Your task to perform on an android device: turn off improve location accuracy Image 0: 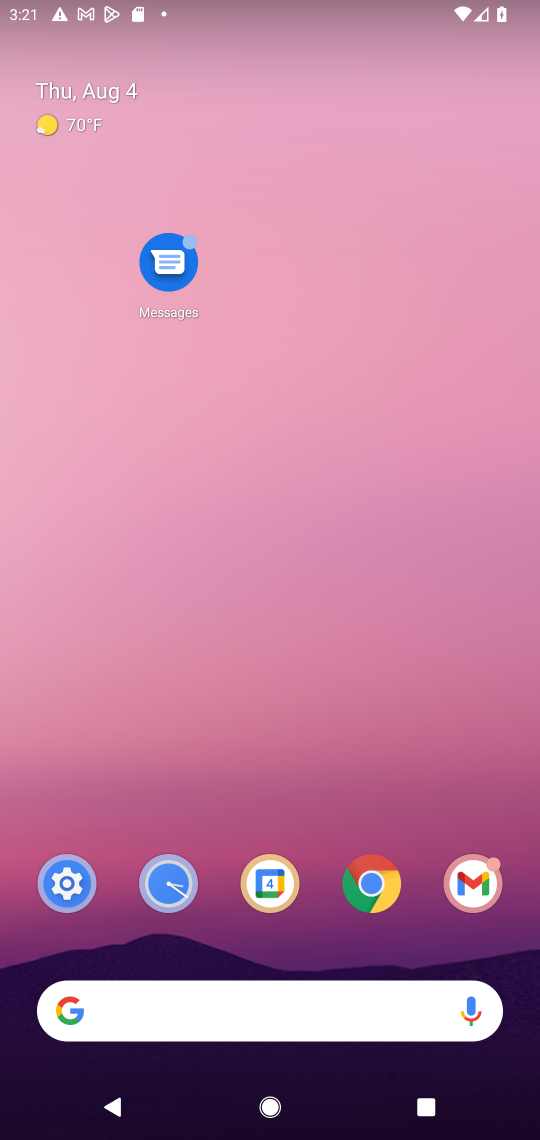
Step 0: drag from (310, 775) to (331, 136)
Your task to perform on an android device: turn off improve location accuracy Image 1: 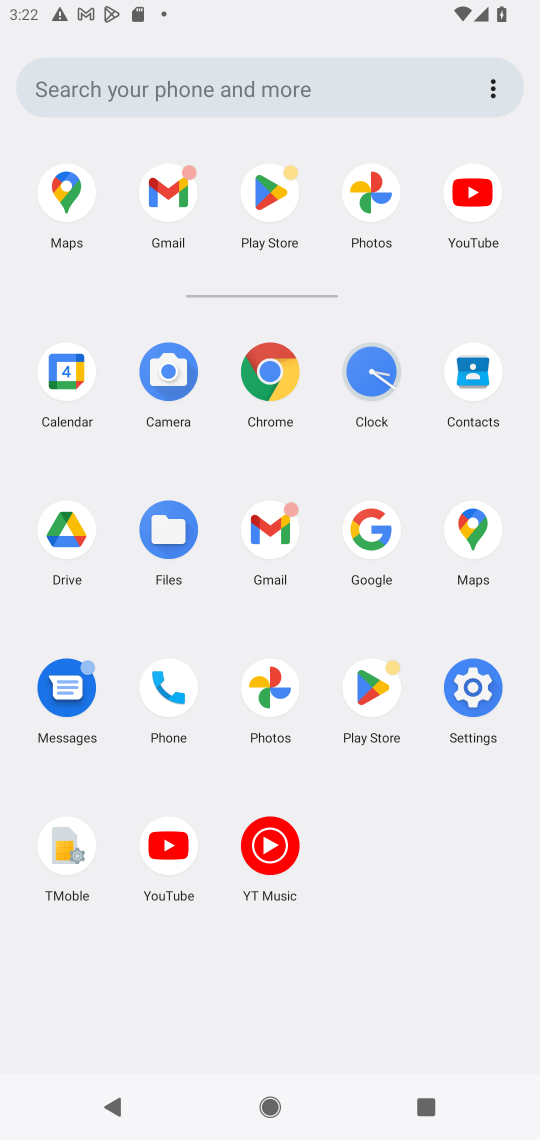
Step 1: click (473, 689)
Your task to perform on an android device: turn off improve location accuracy Image 2: 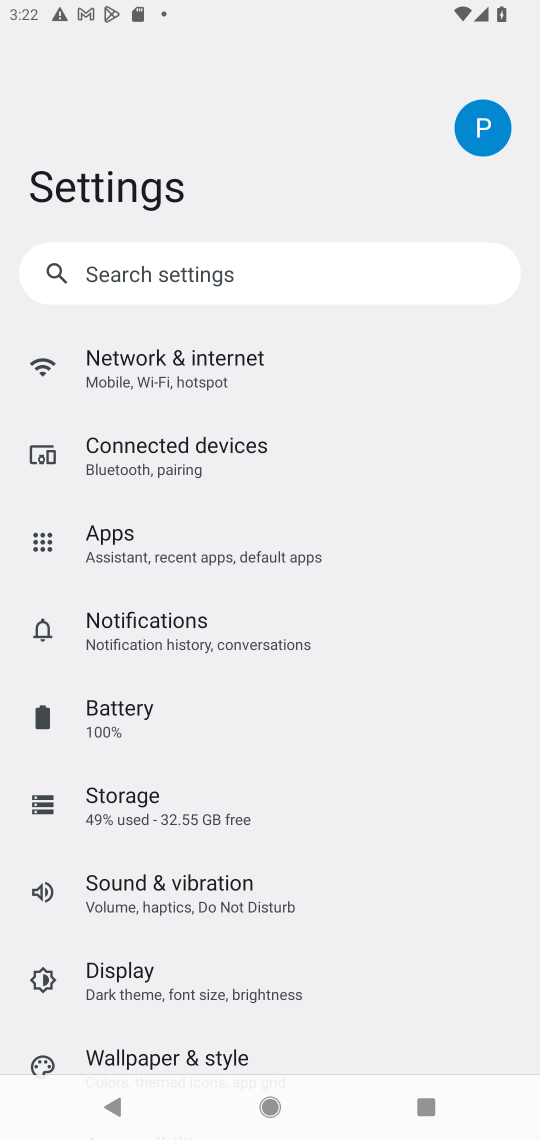
Step 2: drag from (233, 984) to (222, 655)
Your task to perform on an android device: turn off improve location accuracy Image 3: 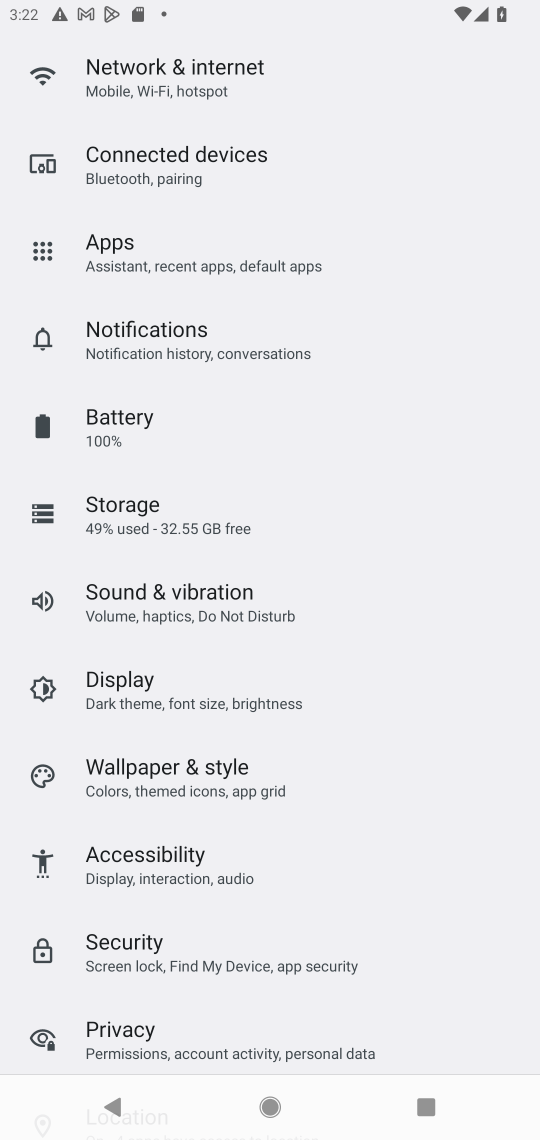
Step 3: drag from (213, 944) to (204, 514)
Your task to perform on an android device: turn off improve location accuracy Image 4: 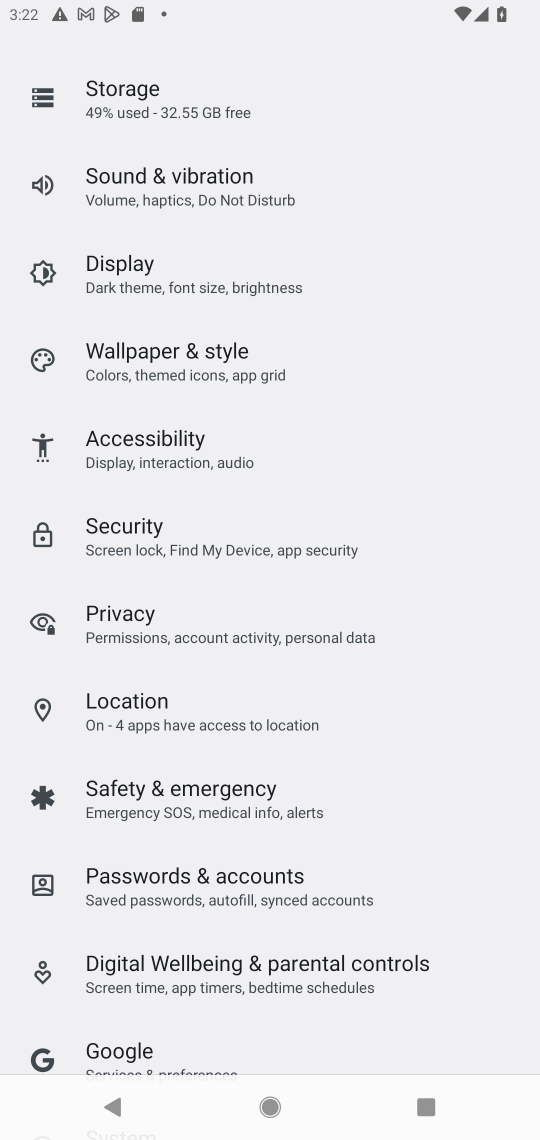
Step 4: click (136, 705)
Your task to perform on an android device: turn off improve location accuracy Image 5: 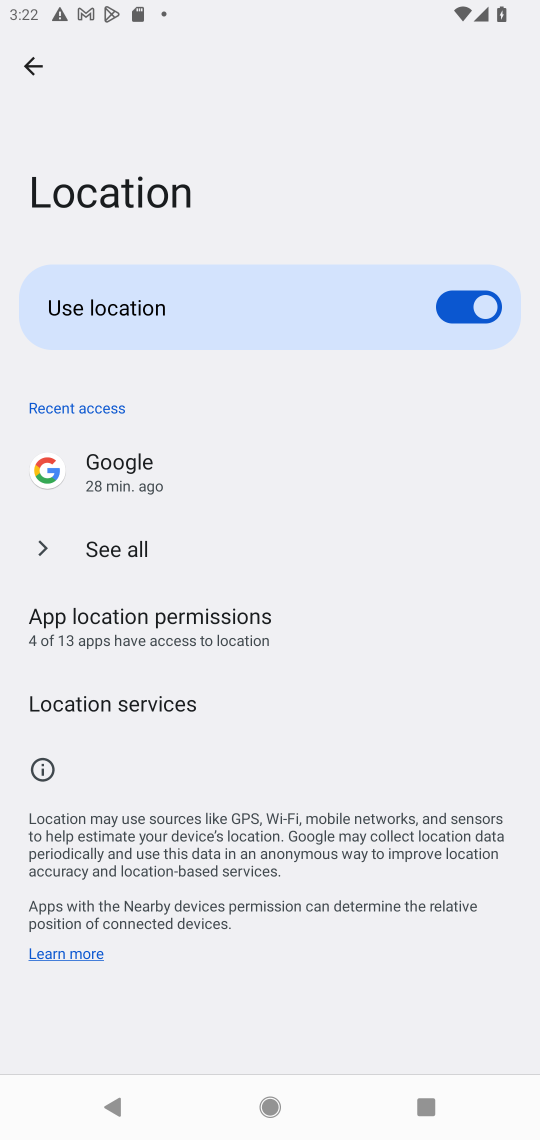
Step 5: click (143, 699)
Your task to perform on an android device: turn off improve location accuracy Image 6: 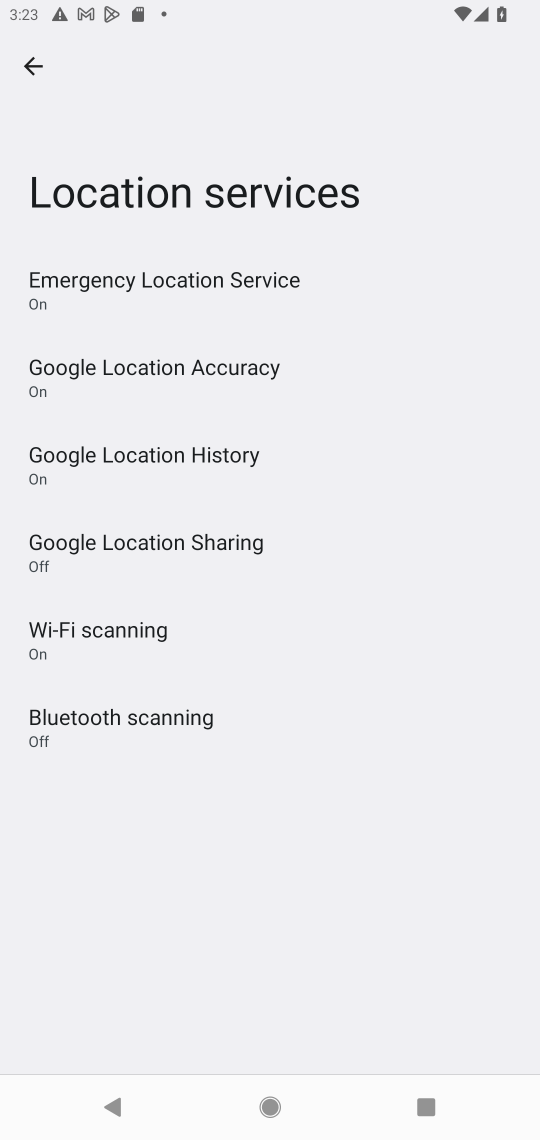
Step 6: click (233, 360)
Your task to perform on an android device: turn off improve location accuracy Image 7: 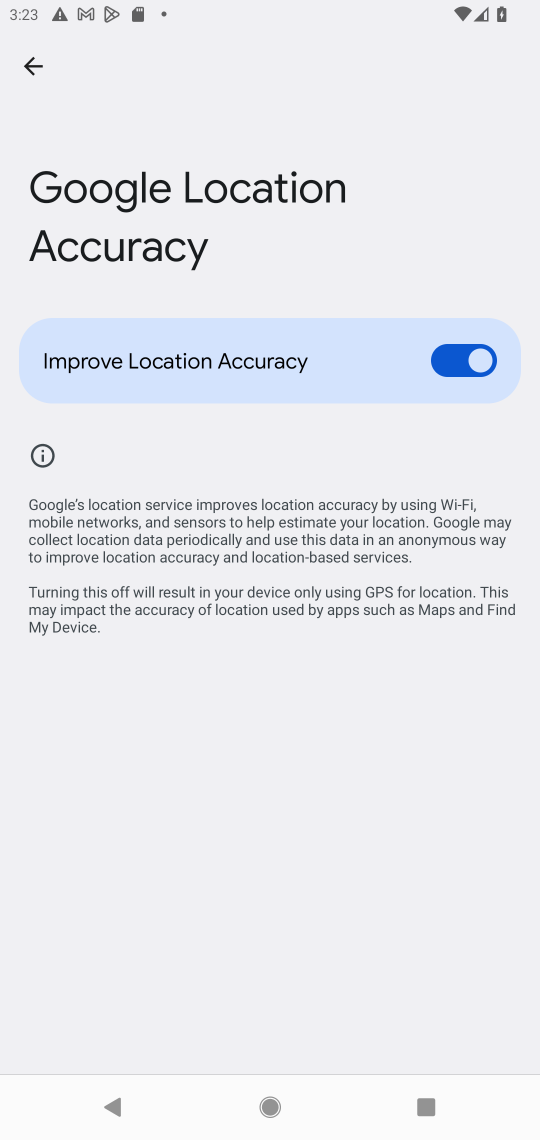
Step 7: click (467, 362)
Your task to perform on an android device: turn off improve location accuracy Image 8: 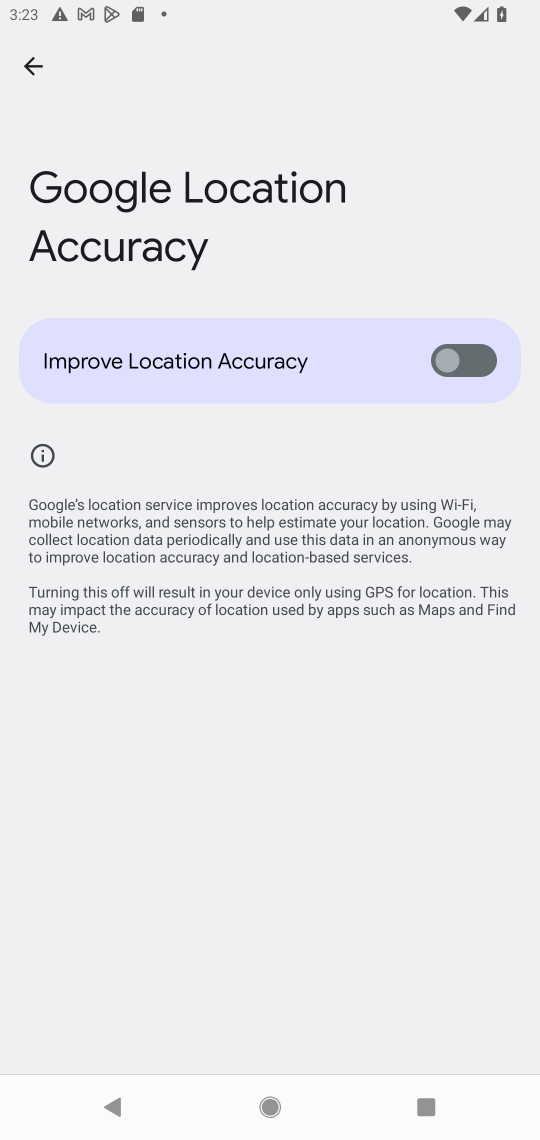
Step 8: task complete